Your task to perform on an android device: Open Google Chrome Image 0: 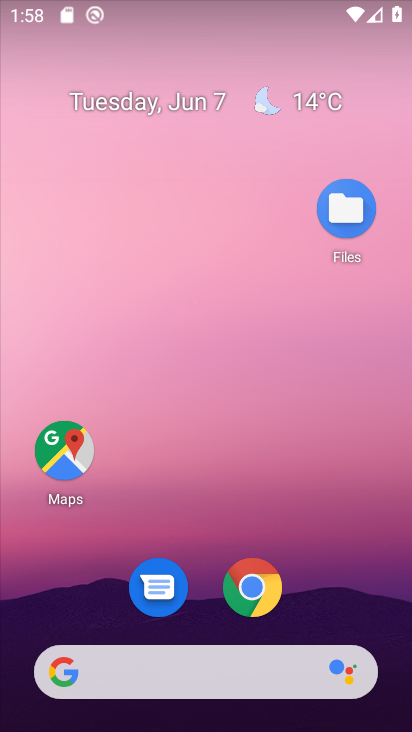
Step 0: click (284, 572)
Your task to perform on an android device: Open Google Chrome Image 1: 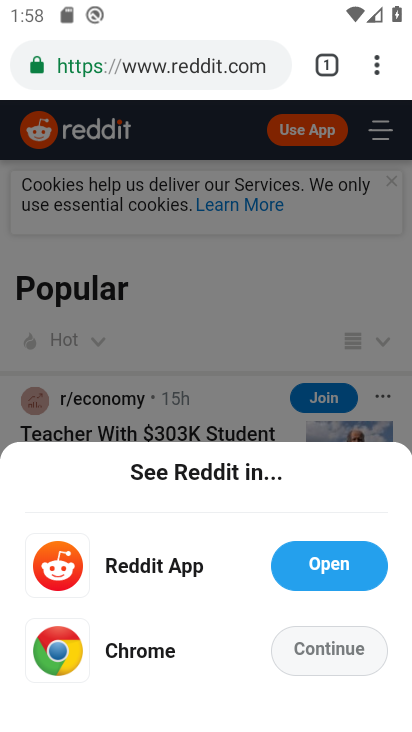
Step 1: task complete